Your task to perform on an android device: Open Android settings Image 0: 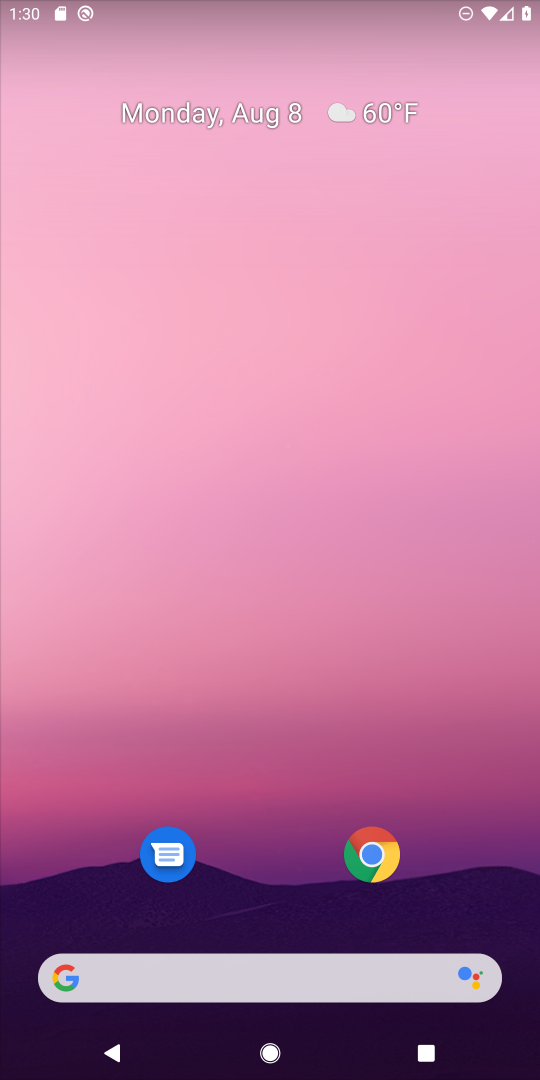
Step 0: drag from (275, 900) to (336, 125)
Your task to perform on an android device: Open Android settings Image 1: 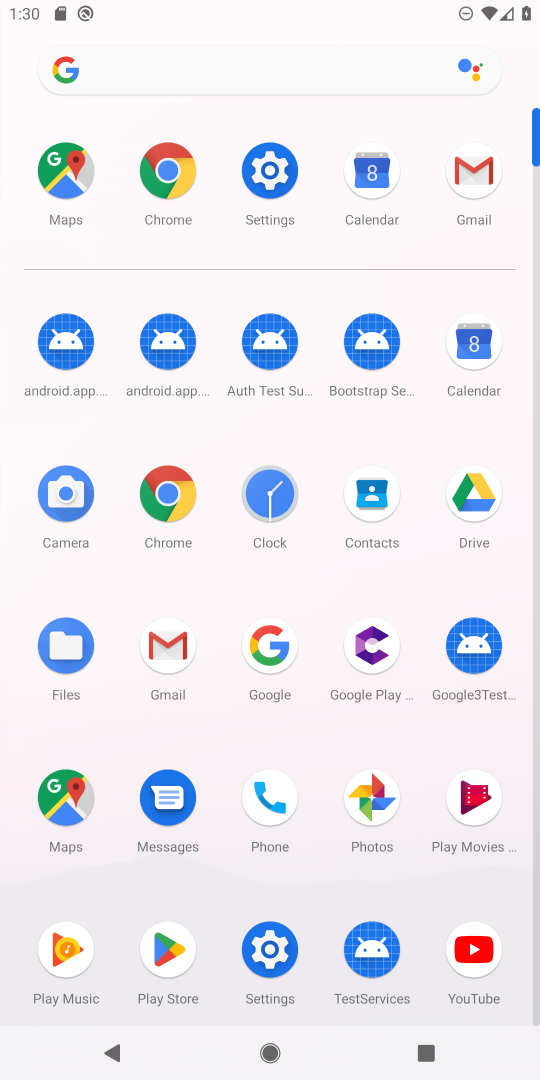
Step 1: click (270, 171)
Your task to perform on an android device: Open Android settings Image 2: 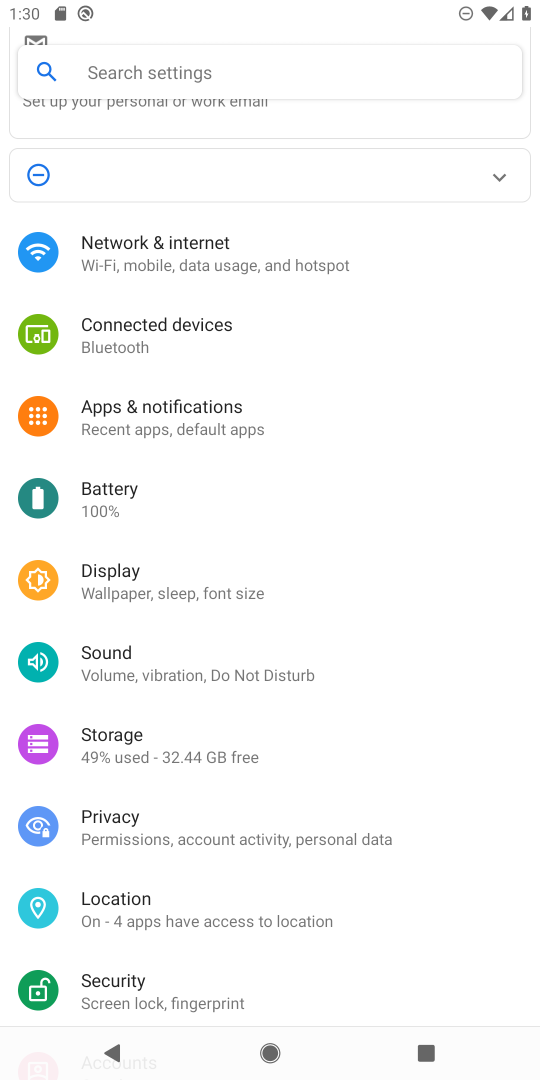
Step 2: task complete